Your task to perform on an android device: open sync settings in chrome Image 0: 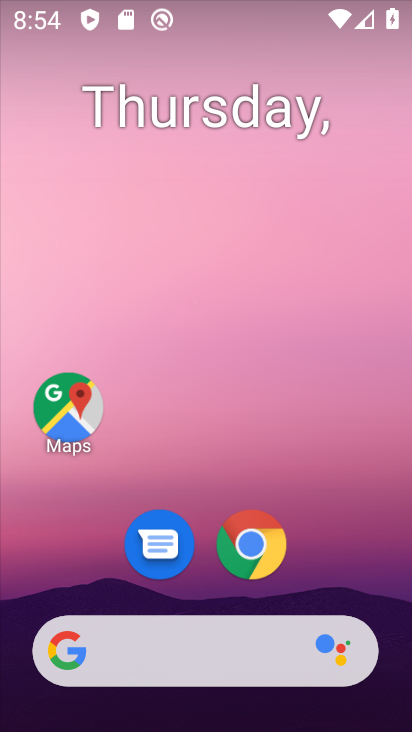
Step 0: click (255, 549)
Your task to perform on an android device: open sync settings in chrome Image 1: 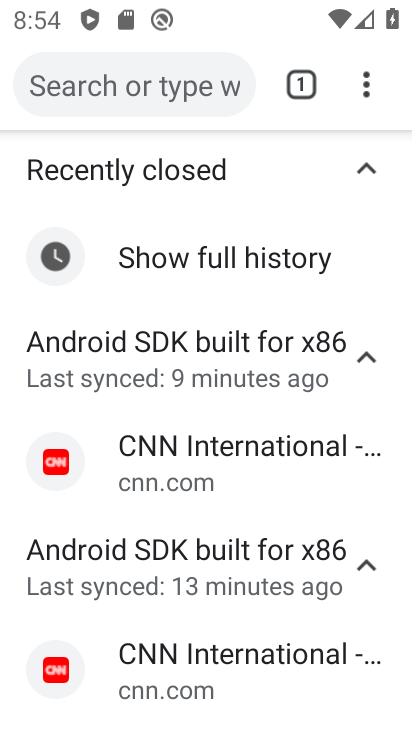
Step 1: click (363, 81)
Your task to perform on an android device: open sync settings in chrome Image 2: 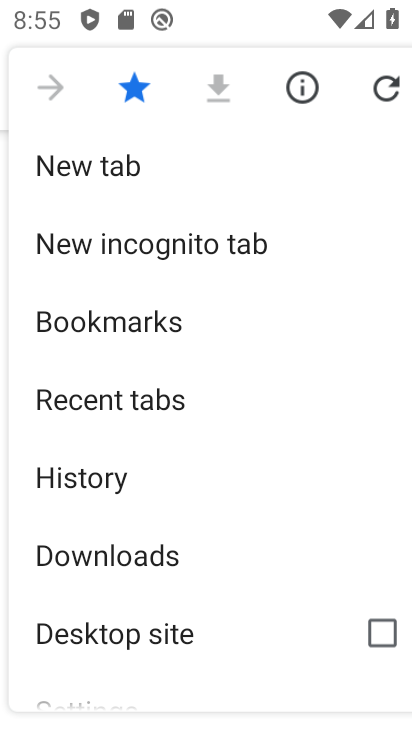
Step 2: click (126, 704)
Your task to perform on an android device: open sync settings in chrome Image 3: 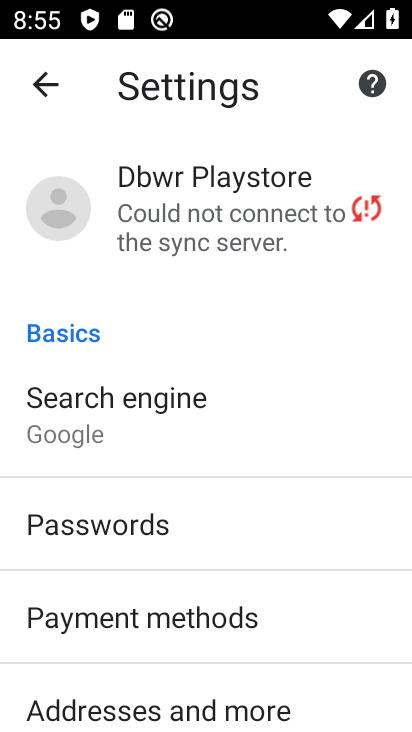
Step 3: click (258, 210)
Your task to perform on an android device: open sync settings in chrome Image 4: 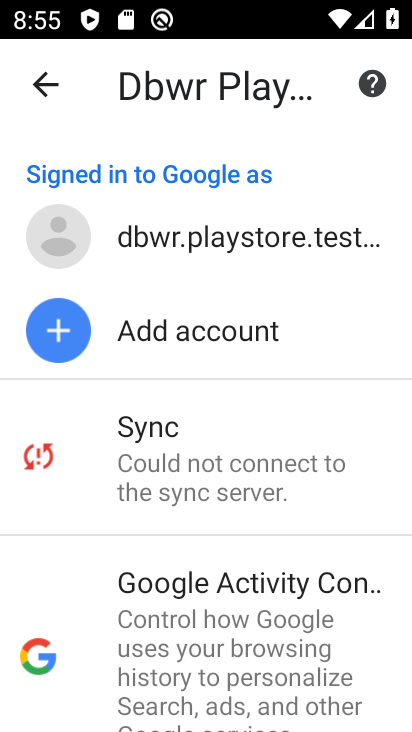
Step 4: task complete